Your task to perform on an android device: Add "razer naga" to the cart on walmart.com Image 0: 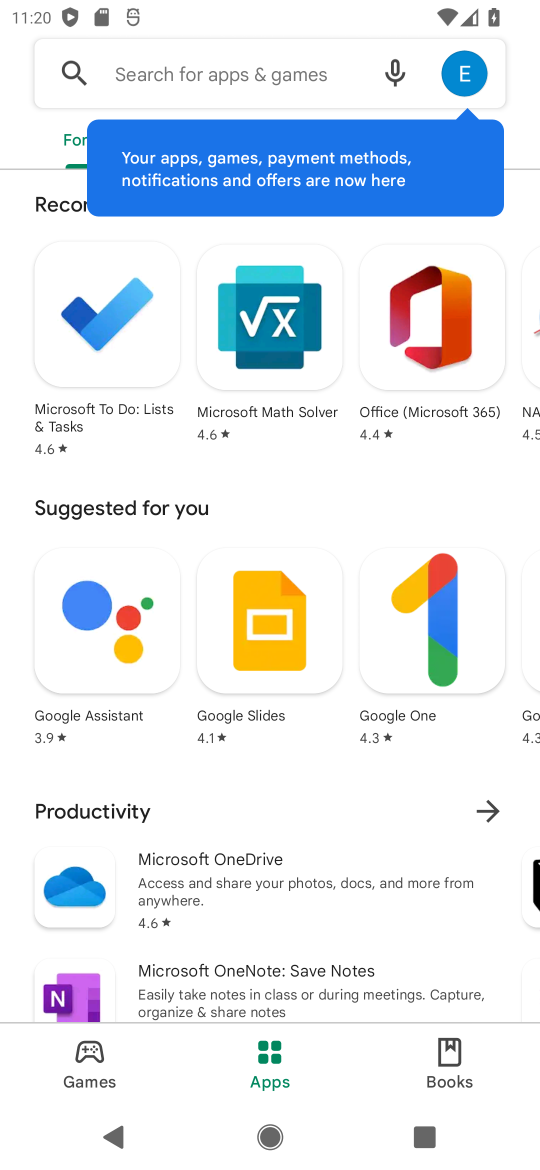
Step 0: press home button
Your task to perform on an android device: Add "razer naga" to the cart on walmart.com Image 1: 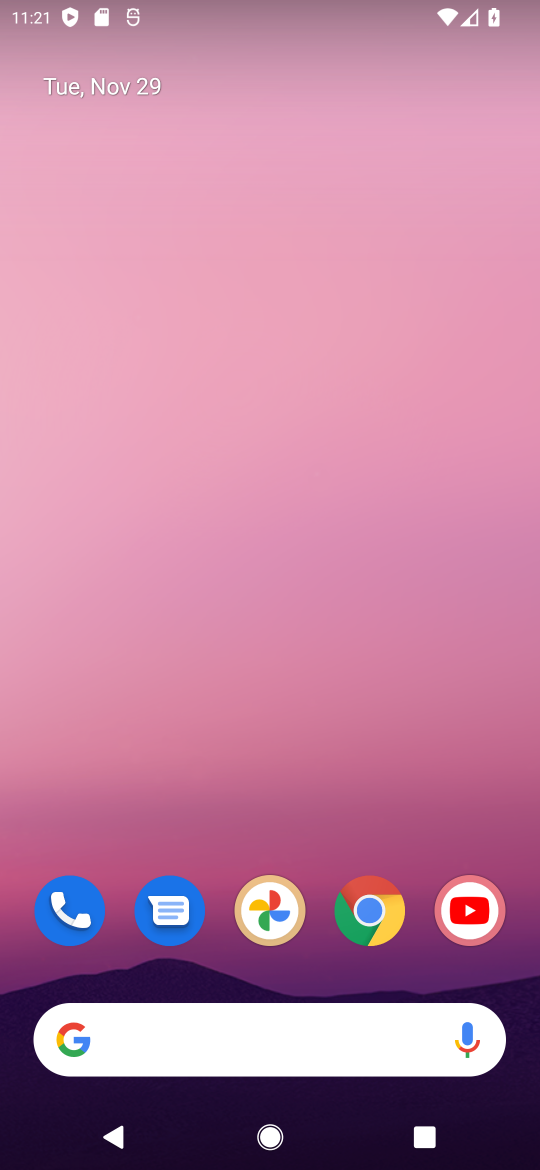
Step 1: click (373, 920)
Your task to perform on an android device: Add "razer naga" to the cart on walmart.com Image 2: 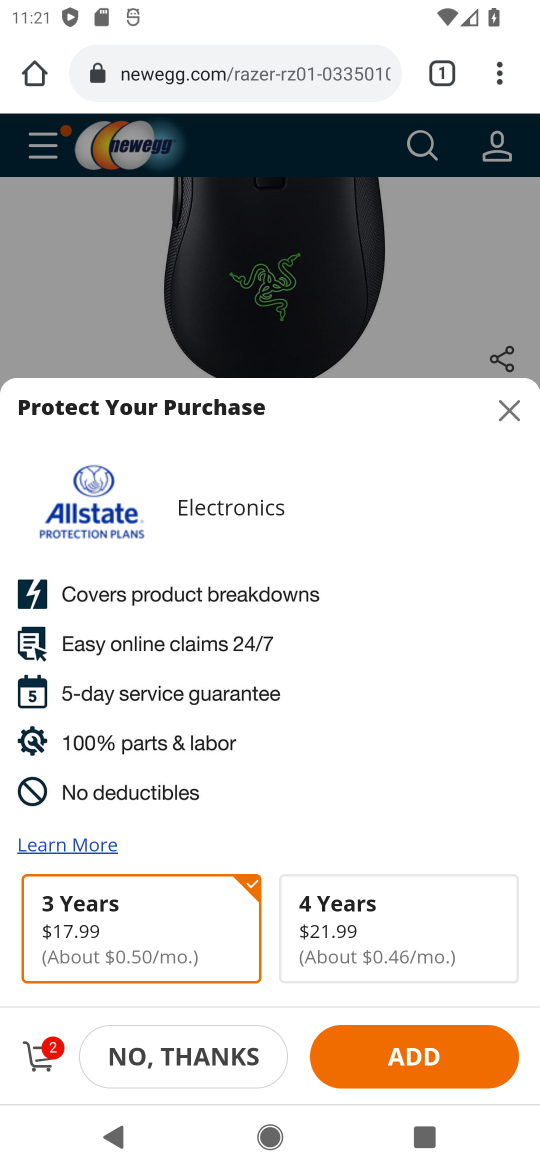
Step 2: click (216, 80)
Your task to perform on an android device: Add "razer naga" to the cart on walmart.com Image 3: 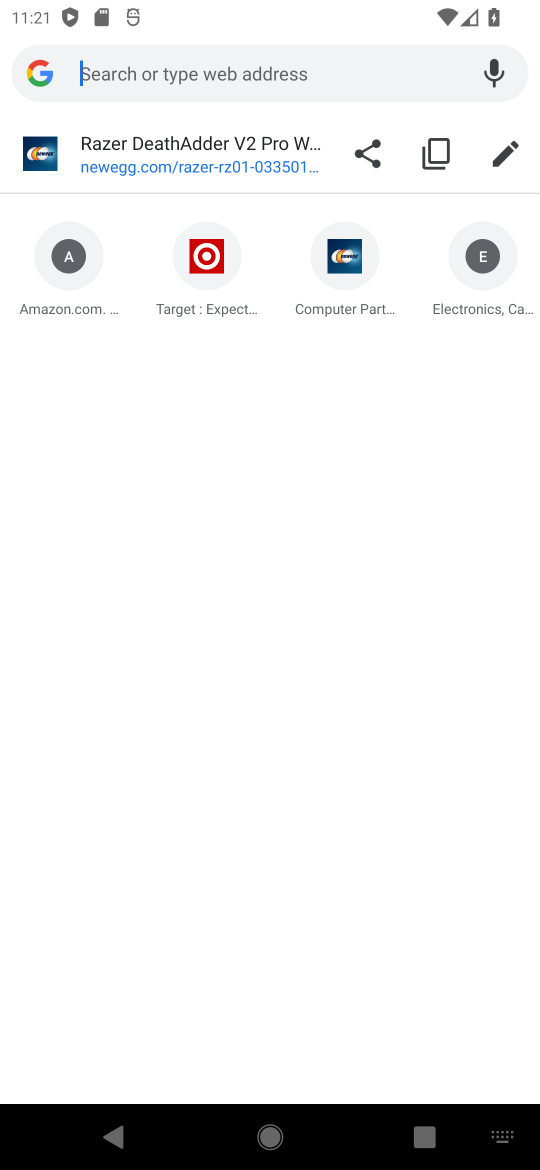
Step 3: type "walmart.com"
Your task to perform on an android device: Add "razer naga" to the cart on walmart.com Image 4: 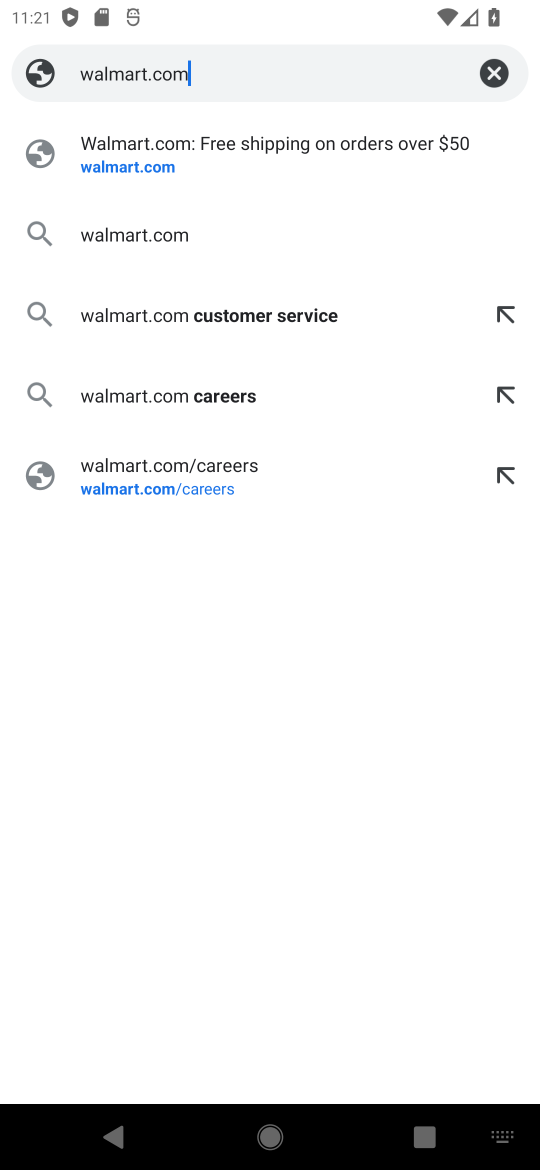
Step 4: click (129, 171)
Your task to perform on an android device: Add "razer naga" to the cart on walmart.com Image 5: 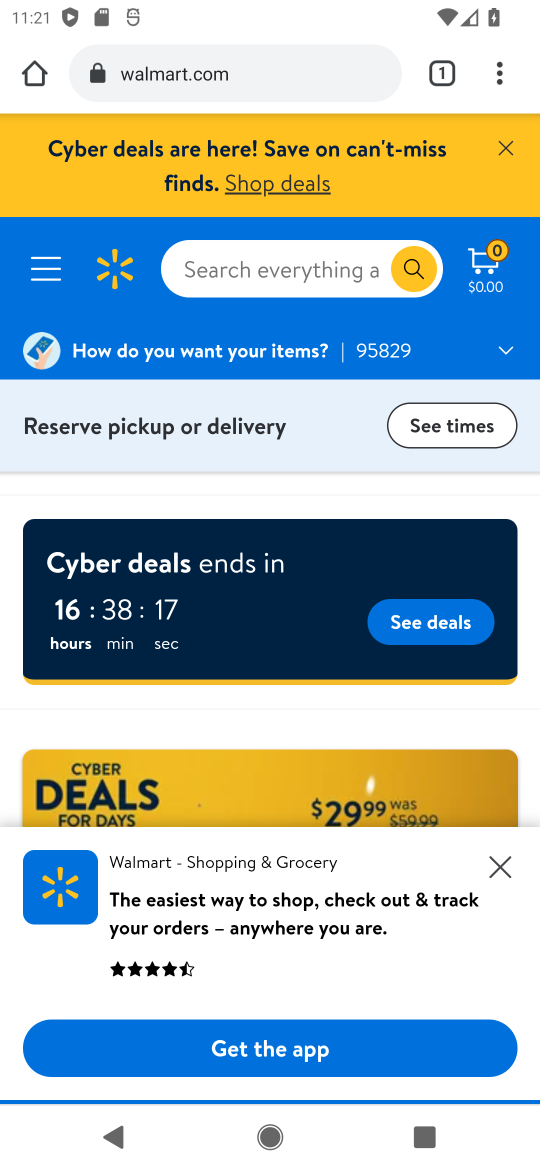
Step 5: click (216, 270)
Your task to perform on an android device: Add "razer naga" to the cart on walmart.com Image 6: 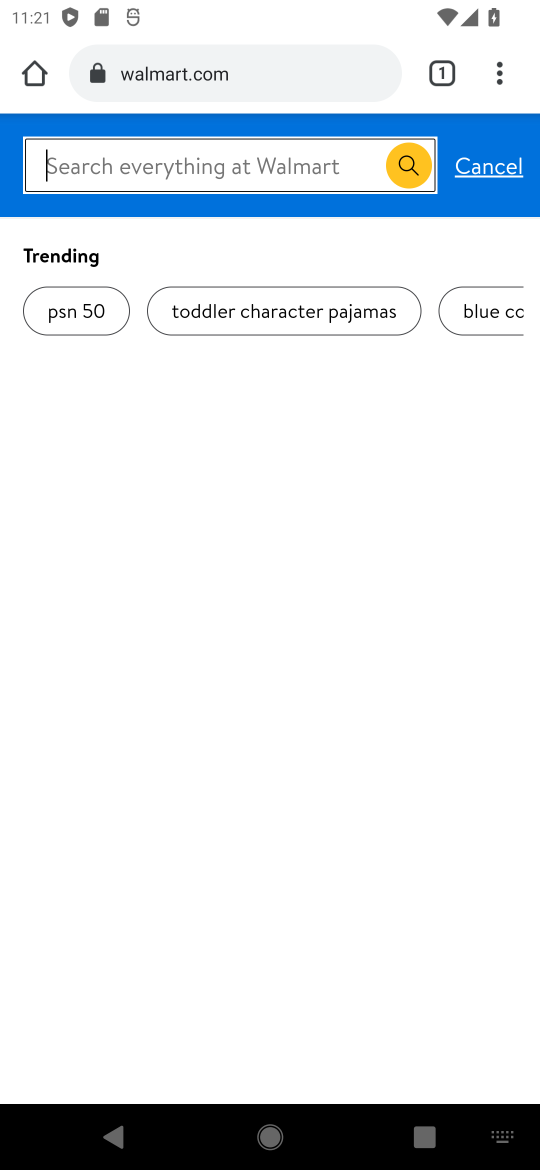
Step 6: type "razer naga"
Your task to perform on an android device: Add "razer naga" to the cart on walmart.com Image 7: 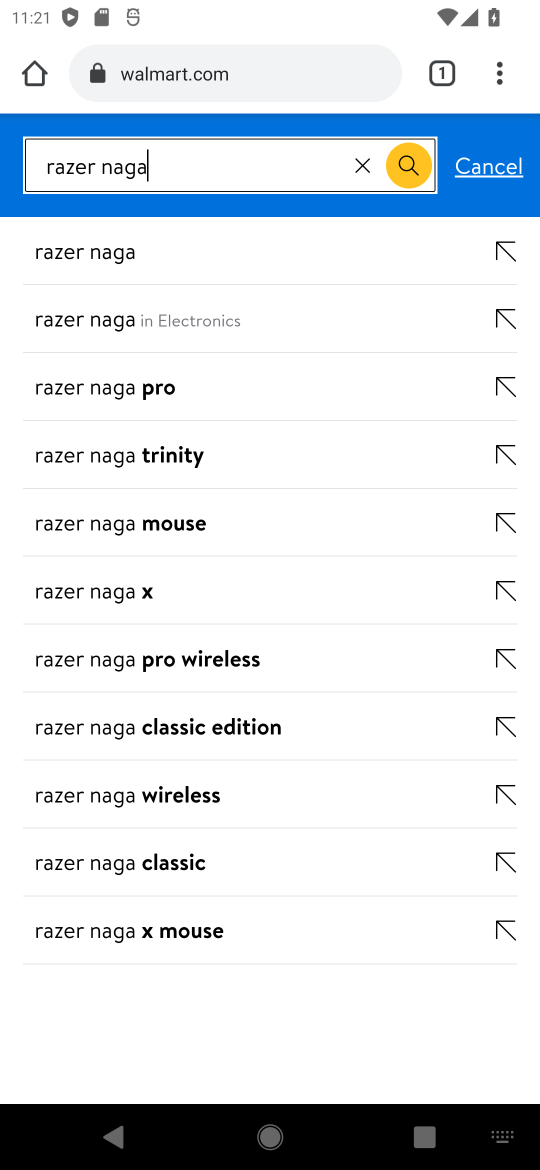
Step 7: click (118, 256)
Your task to perform on an android device: Add "razer naga" to the cart on walmart.com Image 8: 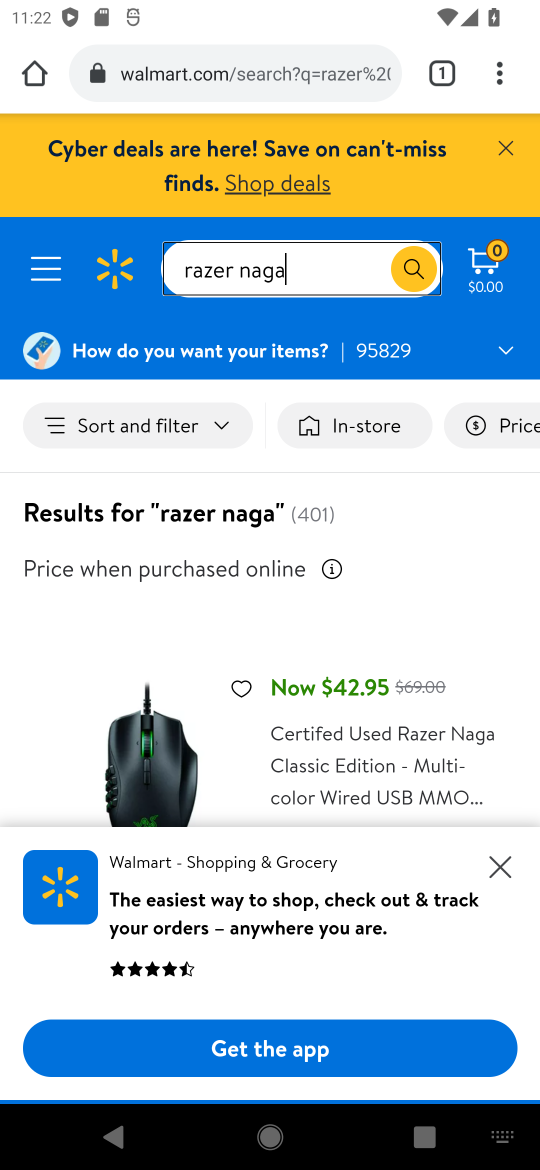
Step 8: drag from (370, 674) to (341, 343)
Your task to perform on an android device: Add "razer naga" to the cart on walmart.com Image 9: 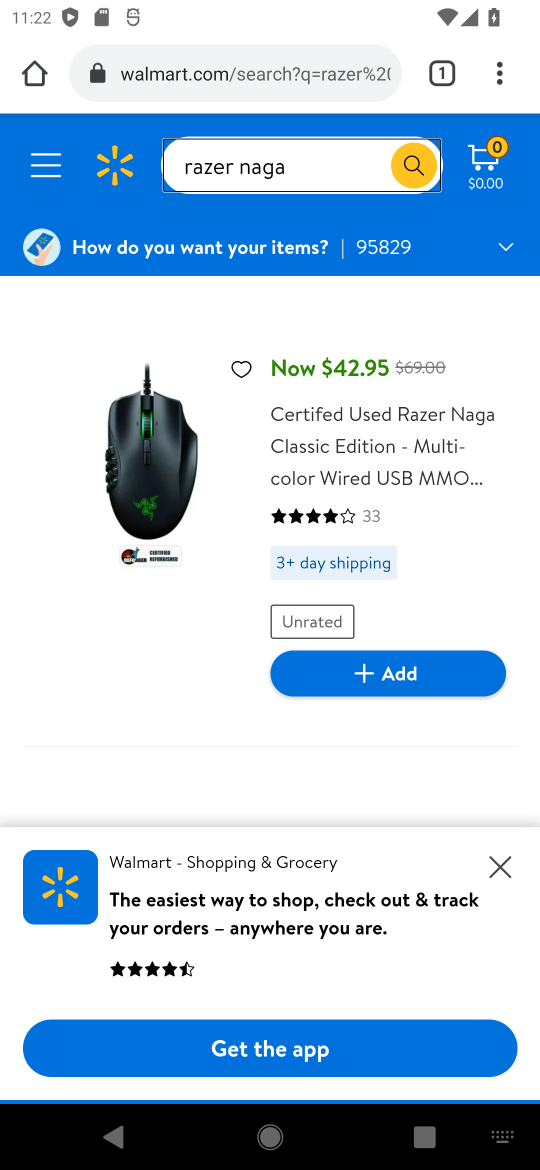
Step 9: click (408, 679)
Your task to perform on an android device: Add "razer naga" to the cart on walmart.com Image 10: 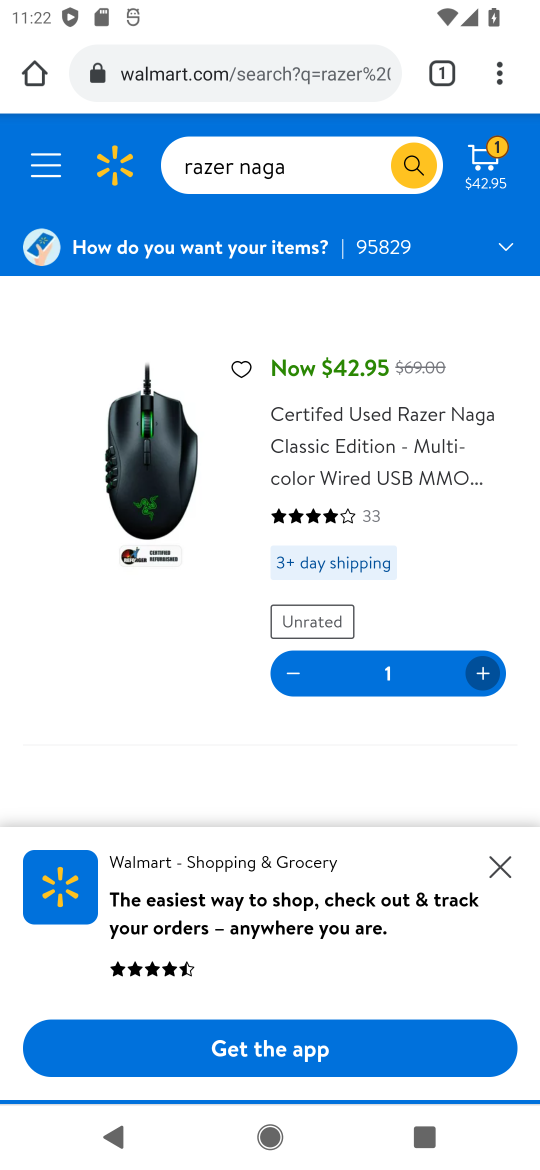
Step 10: task complete